Your task to perform on an android device: Find coffee shops on Maps Image 0: 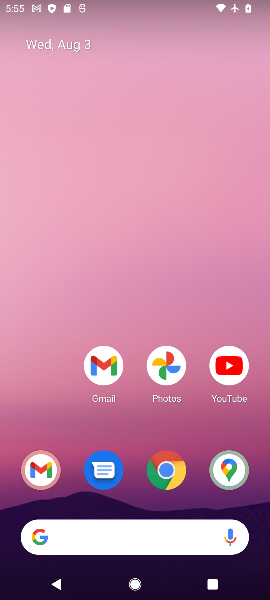
Step 0: drag from (131, 435) to (181, 44)
Your task to perform on an android device: Find coffee shops on Maps Image 1: 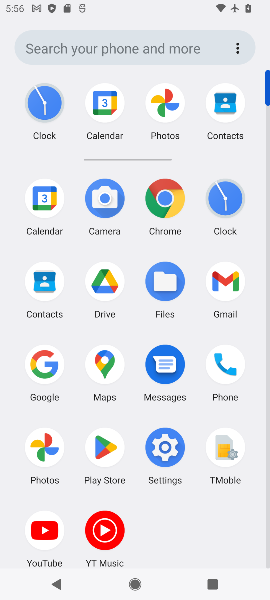
Step 1: click (105, 360)
Your task to perform on an android device: Find coffee shops on Maps Image 2: 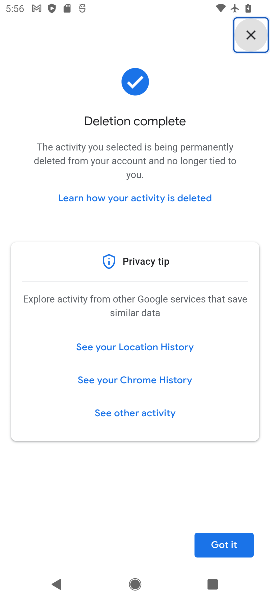
Step 2: click (241, 541)
Your task to perform on an android device: Find coffee shops on Maps Image 3: 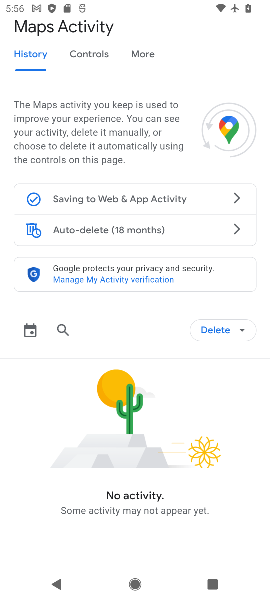
Step 3: press back button
Your task to perform on an android device: Find coffee shops on Maps Image 4: 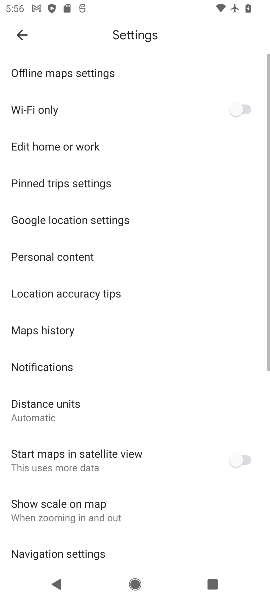
Step 4: press back button
Your task to perform on an android device: Find coffee shops on Maps Image 5: 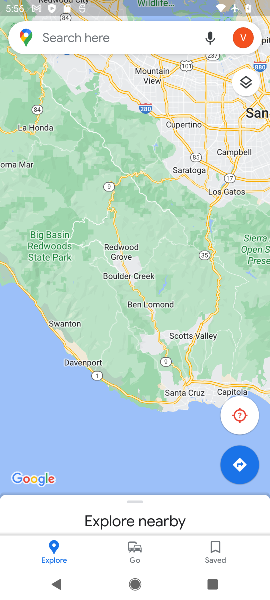
Step 5: click (150, 32)
Your task to perform on an android device: Find coffee shops on Maps Image 6: 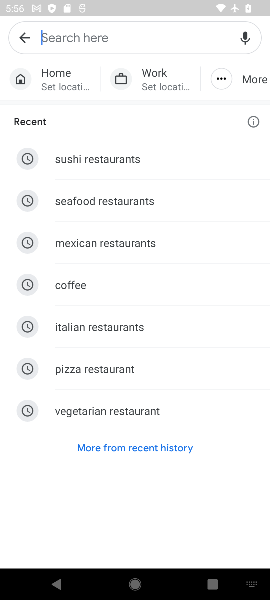
Step 6: type "coffee shops"
Your task to perform on an android device: Find coffee shops on Maps Image 7: 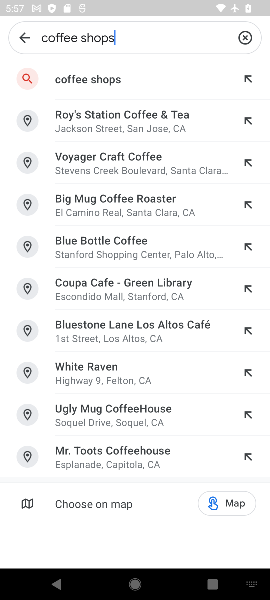
Step 7: click (83, 76)
Your task to perform on an android device: Find coffee shops on Maps Image 8: 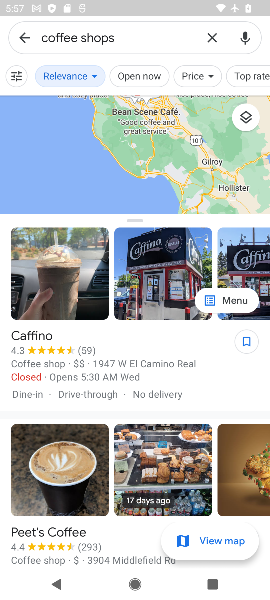
Step 8: task complete